Your task to perform on an android device: change your default location settings in chrome Image 0: 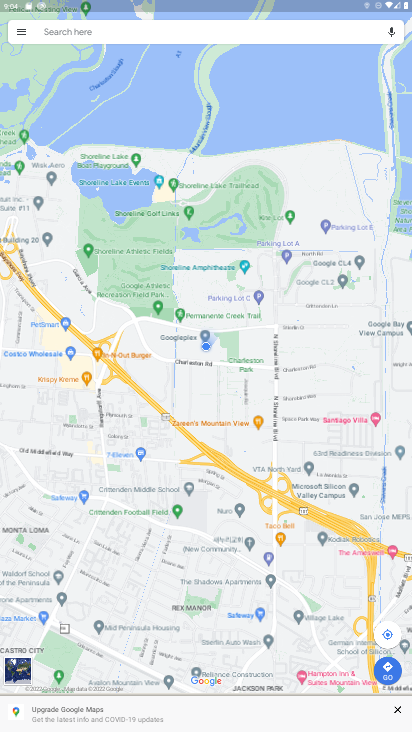
Step 0: press home button
Your task to perform on an android device: change your default location settings in chrome Image 1: 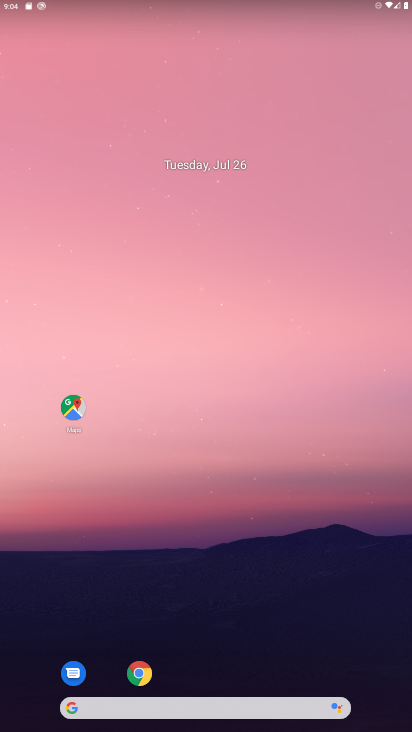
Step 1: click (142, 681)
Your task to perform on an android device: change your default location settings in chrome Image 2: 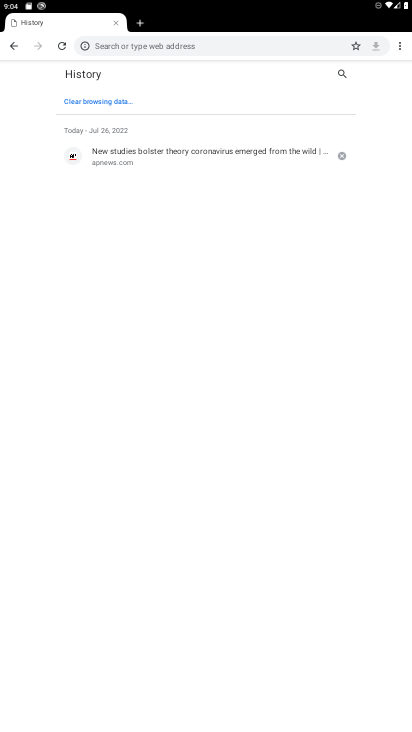
Step 2: click (401, 50)
Your task to perform on an android device: change your default location settings in chrome Image 3: 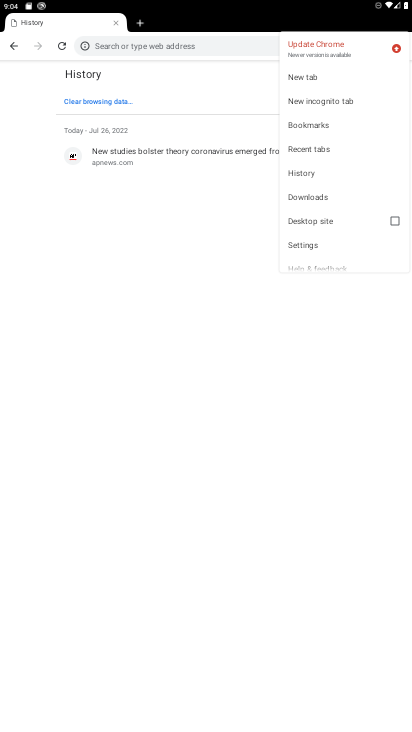
Step 3: click (290, 246)
Your task to perform on an android device: change your default location settings in chrome Image 4: 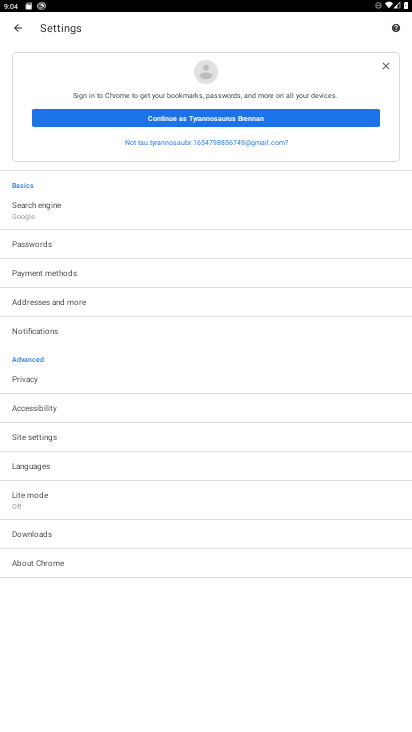
Step 4: click (52, 438)
Your task to perform on an android device: change your default location settings in chrome Image 5: 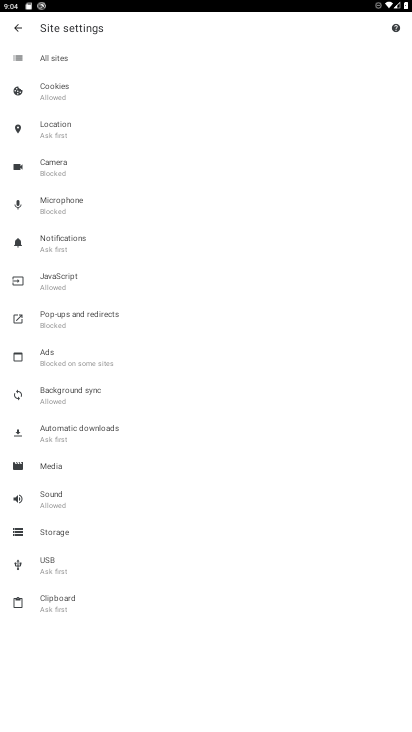
Step 5: click (58, 122)
Your task to perform on an android device: change your default location settings in chrome Image 6: 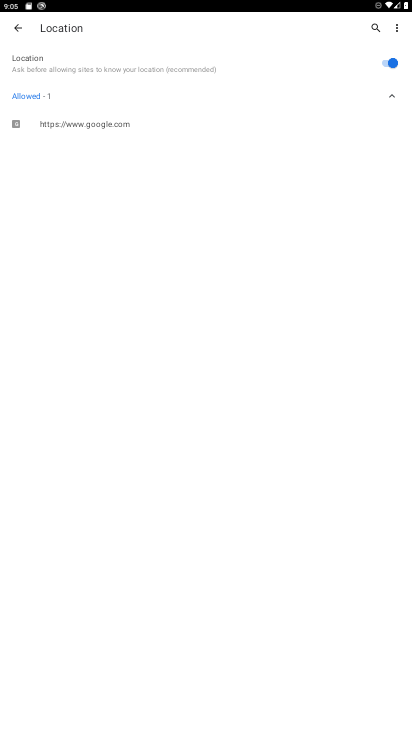
Step 6: click (392, 65)
Your task to perform on an android device: change your default location settings in chrome Image 7: 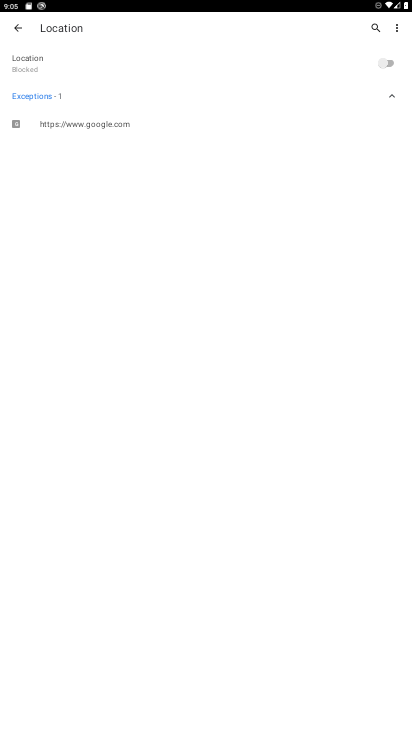
Step 7: task complete